Your task to perform on an android device: allow notifications from all sites in the chrome app Image 0: 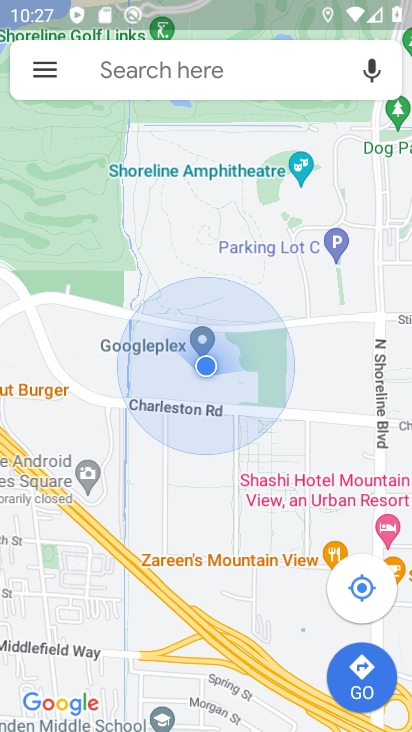
Step 0: drag from (195, 560) to (282, 184)
Your task to perform on an android device: allow notifications from all sites in the chrome app Image 1: 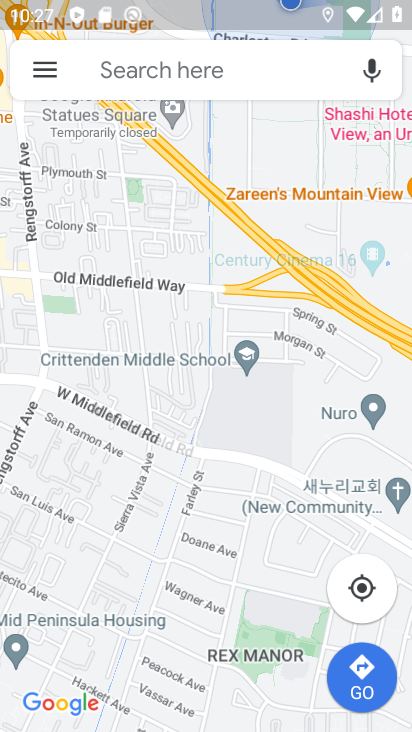
Step 1: drag from (220, 601) to (263, 220)
Your task to perform on an android device: allow notifications from all sites in the chrome app Image 2: 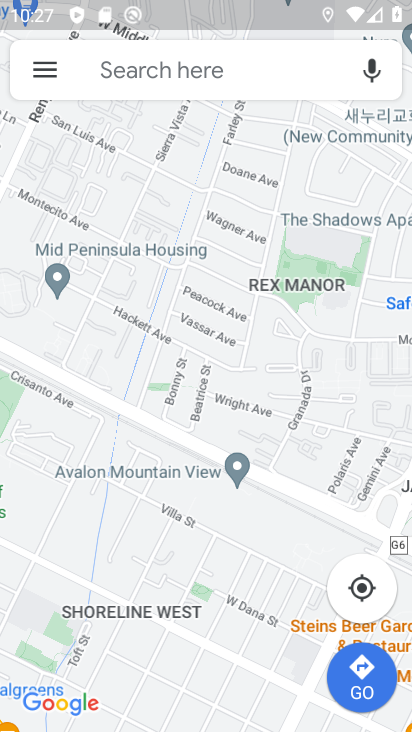
Step 2: click (40, 64)
Your task to perform on an android device: allow notifications from all sites in the chrome app Image 3: 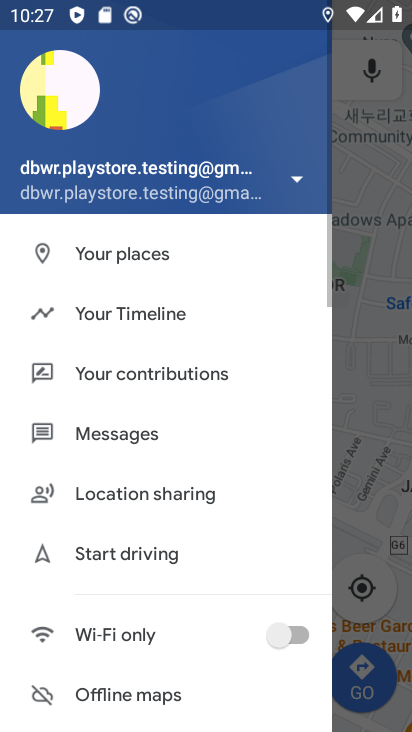
Step 3: drag from (162, 670) to (247, 86)
Your task to perform on an android device: allow notifications from all sites in the chrome app Image 4: 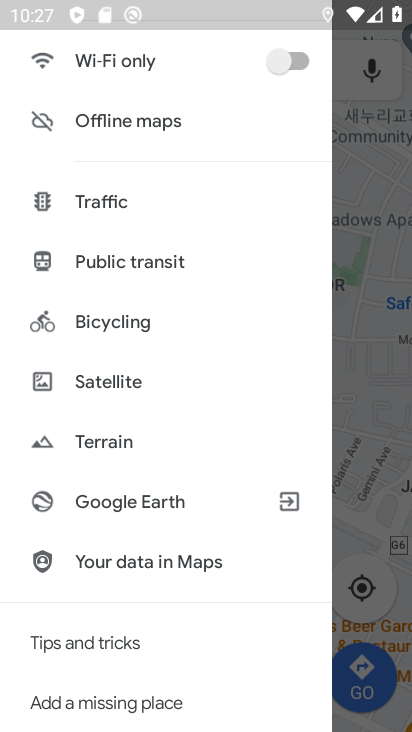
Step 4: drag from (118, 642) to (239, 131)
Your task to perform on an android device: allow notifications from all sites in the chrome app Image 5: 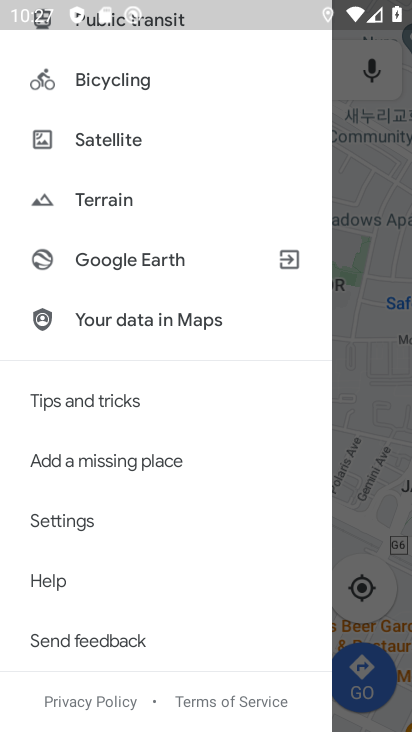
Step 5: click (117, 529)
Your task to perform on an android device: allow notifications from all sites in the chrome app Image 6: 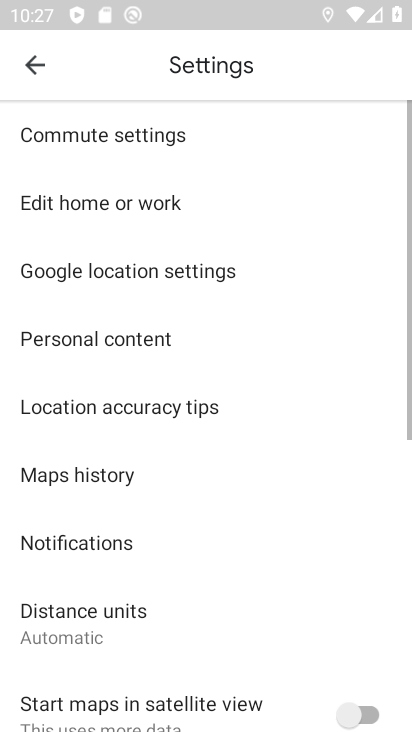
Step 6: drag from (192, 560) to (308, 132)
Your task to perform on an android device: allow notifications from all sites in the chrome app Image 7: 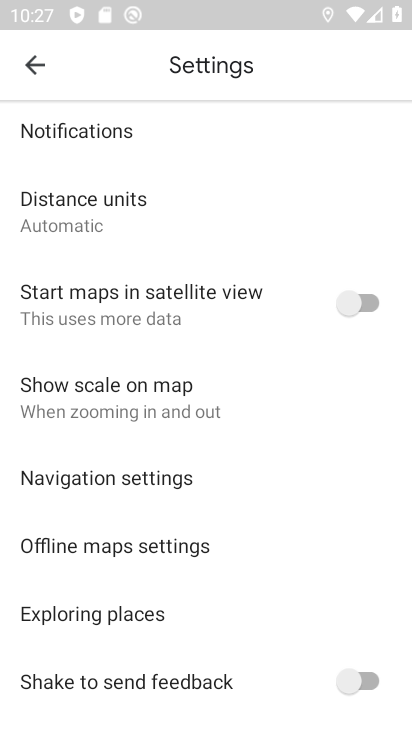
Step 7: drag from (164, 655) to (218, 184)
Your task to perform on an android device: allow notifications from all sites in the chrome app Image 8: 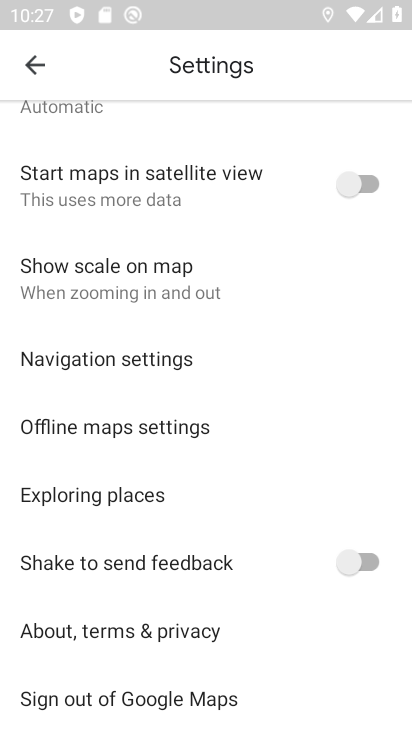
Step 8: drag from (153, 584) to (246, 117)
Your task to perform on an android device: allow notifications from all sites in the chrome app Image 9: 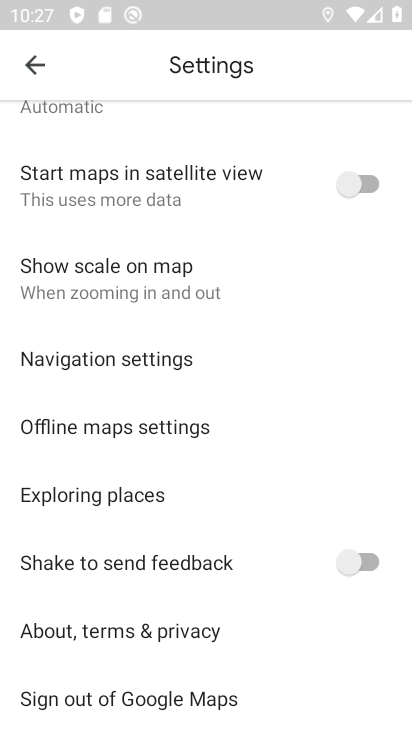
Step 9: drag from (172, 291) to (238, 717)
Your task to perform on an android device: allow notifications from all sites in the chrome app Image 10: 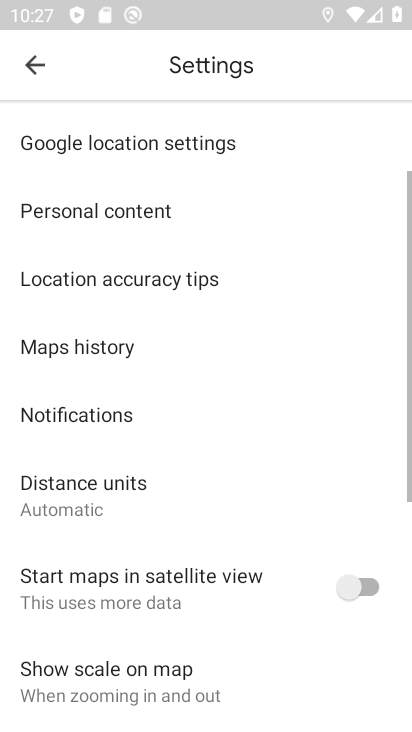
Step 10: drag from (146, 328) to (213, 724)
Your task to perform on an android device: allow notifications from all sites in the chrome app Image 11: 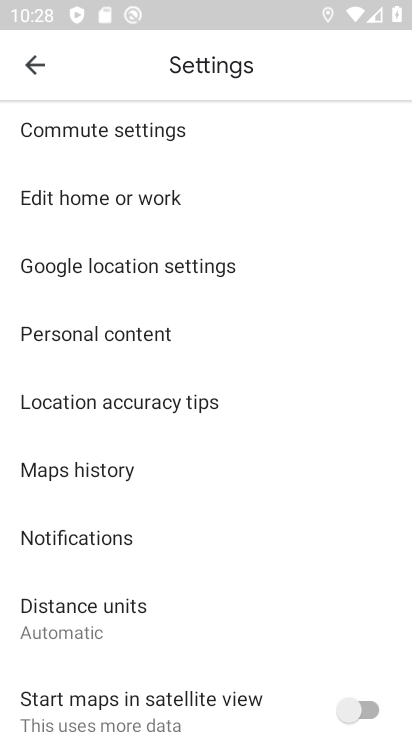
Step 11: press back button
Your task to perform on an android device: allow notifications from all sites in the chrome app Image 12: 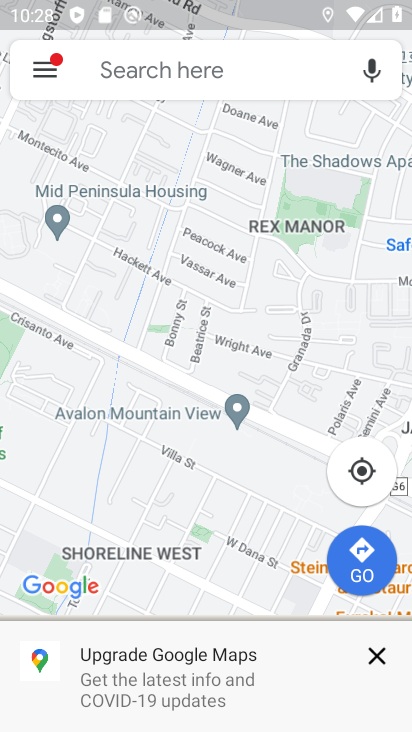
Step 12: press home button
Your task to perform on an android device: allow notifications from all sites in the chrome app Image 13: 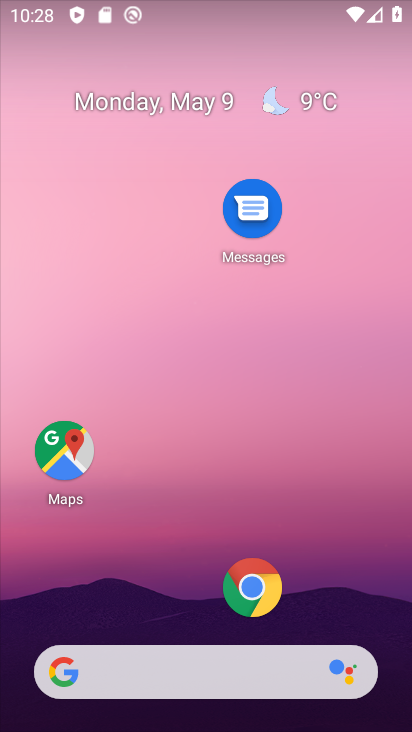
Step 13: drag from (191, 615) to (146, 48)
Your task to perform on an android device: allow notifications from all sites in the chrome app Image 14: 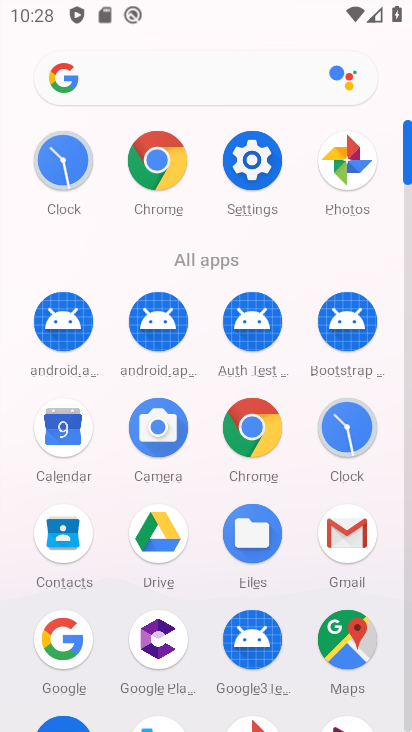
Step 14: click (252, 425)
Your task to perform on an android device: allow notifications from all sites in the chrome app Image 15: 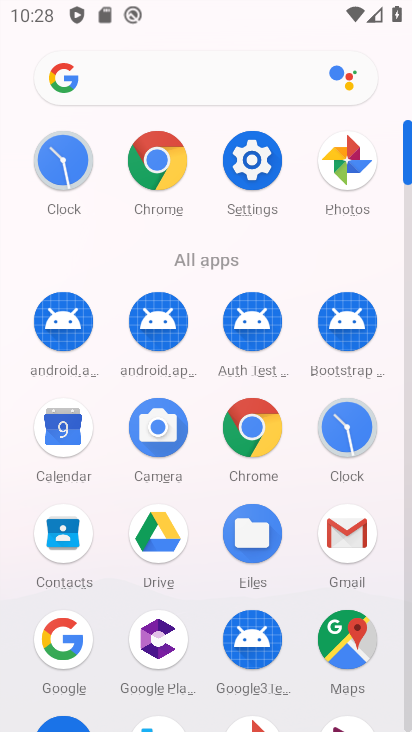
Step 15: click (252, 425)
Your task to perform on an android device: allow notifications from all sites in the chrome app Image 16: 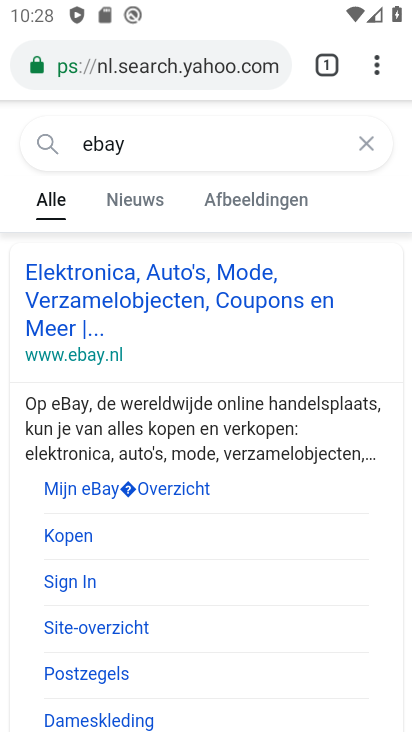
Step 16: drag from (167, 657) to (212, 204)
Your task to perform on an android device: allow notifications from all sites in the chrome app Image 17: 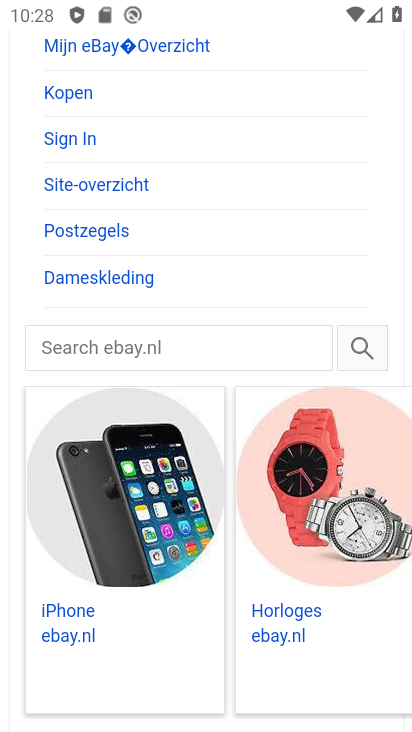
Step 17: drag from (219, 225) to (280, 713)
Your task to perform on an android device: allow notifications from all sites in the chrome app Image 18: 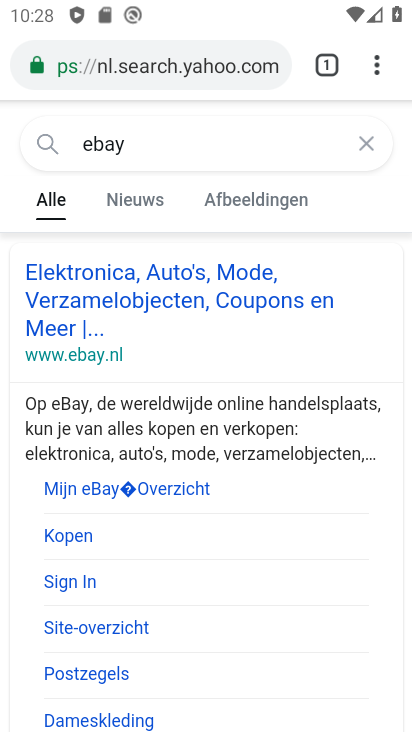
Step 18: drag from (256, 299) to (268, 374)
Your task to perform on an android device: allow notifications from all sites in the chrome app Image 19: 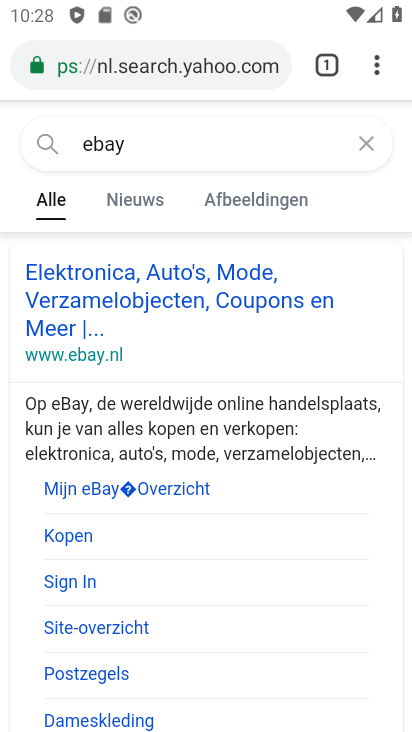
Step 19: click (362, 135)
Your task to perform on an android device: allow notifications from all sites in the chrome app Image 20: 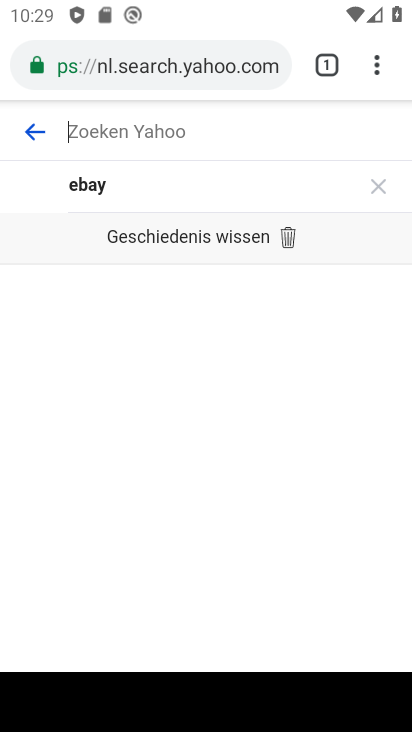
Step 20: click (367, 66)
Your task to perform on an android device: allow notifications from all sites in the chrome app Image 21: 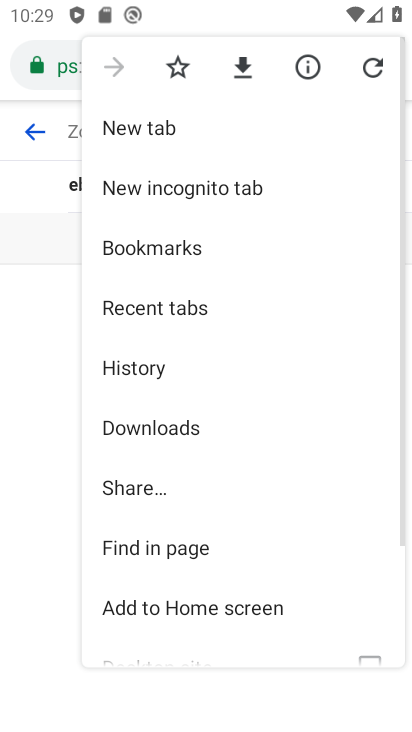
Step 21: drag from (206, 571) to (300, 105)
Your task to perform on an android device: allow notifications from all sites in the chrome app Image 22: 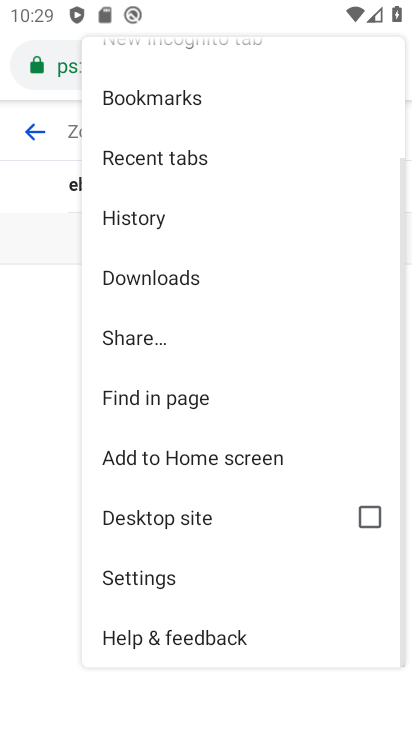
Step 22: click (166, 575)
Your task to perform on an android device: allow notifications from all sites in the chrome app Image 23: 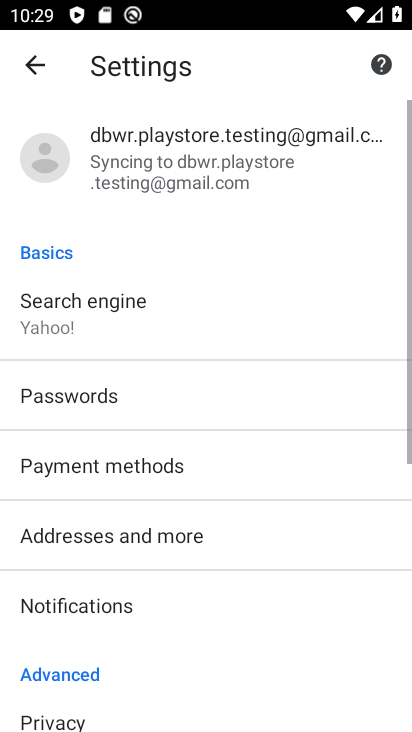
Step 23: drag from (208, 517) to (266, 99)
Your task to perform on an android device: allow notifications from all sites in the chrome app Image 24: 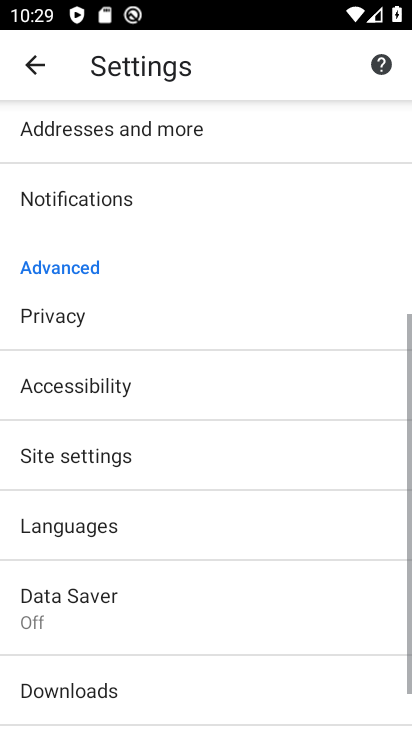
Step 24: drag from (197, 638) to (243, 176)
Your task to perform on an android device: allow notifications from all sites in the chrome app Image 25: 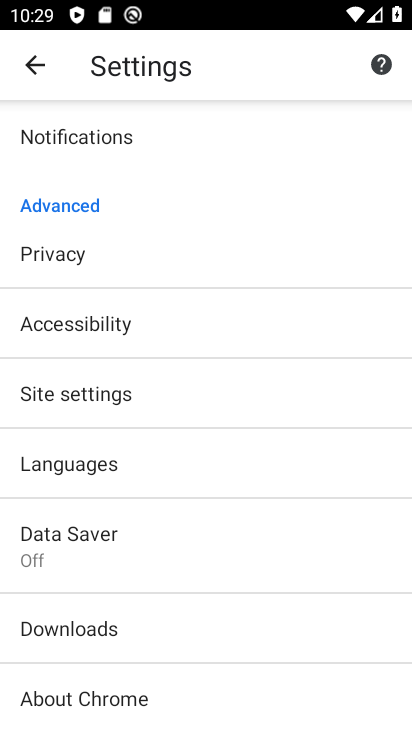
Step 25: click (124, 391)
Your task to perform on an android device: allow notifications from all sites in the chrome app Image 26: 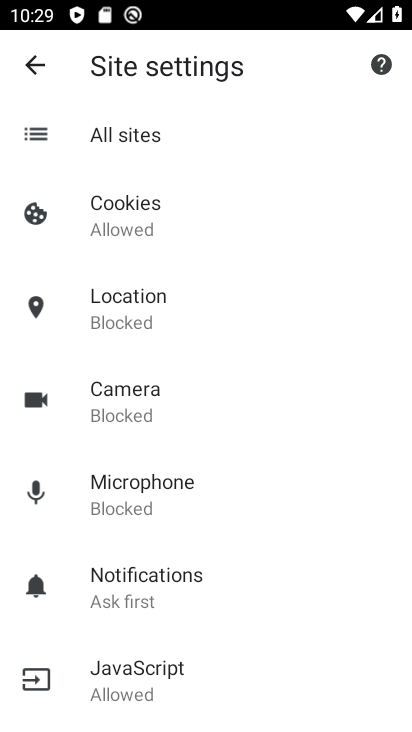
Step 26: click (144, 605)
Your task to perform on an android device: allow notifications from all sites in the chrome app Image 27: 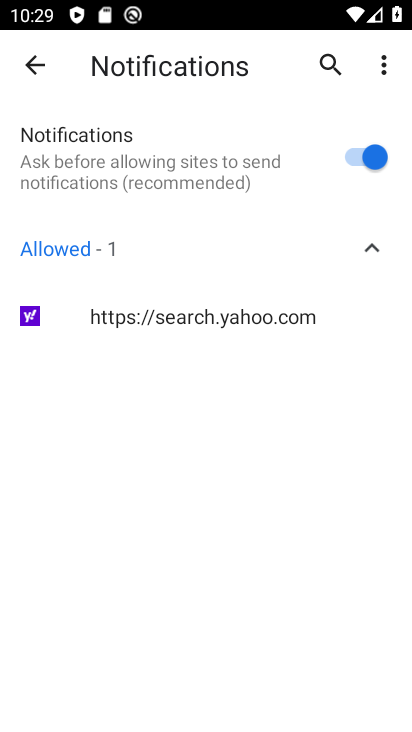
Step 27: task complete